Your task to perform on an android device: turn off picture-in-picture Image 0: 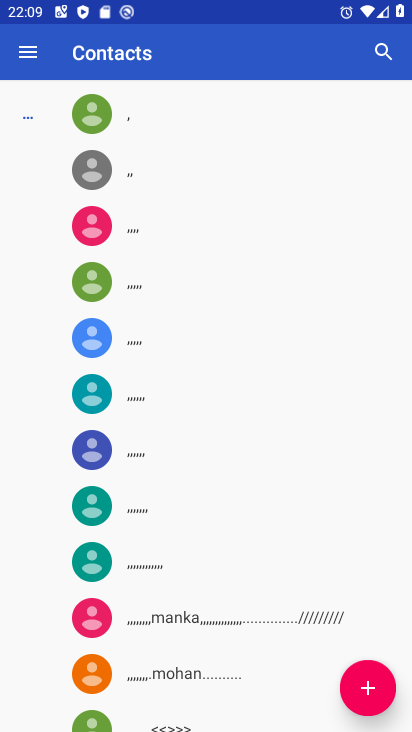
Step 0: press home button
Your task to perform on an android device: turn off picture-in-picture Image 1: 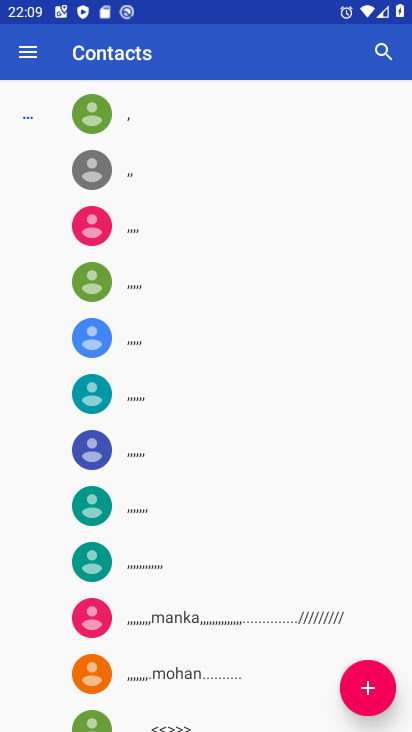
Step 1: press home button
Your task to perform on an android device: turn off picture-in-picture Image 2: 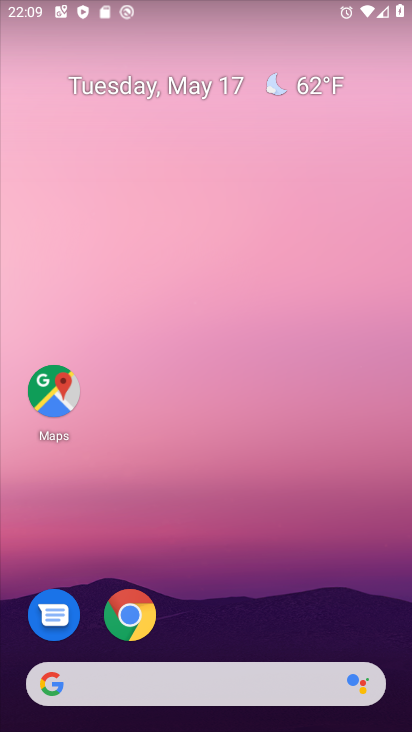
Step 2: drag from (172, 426) to (188, 48)
Your task to perform on an android device: turn off picture-in-picture Image 3: 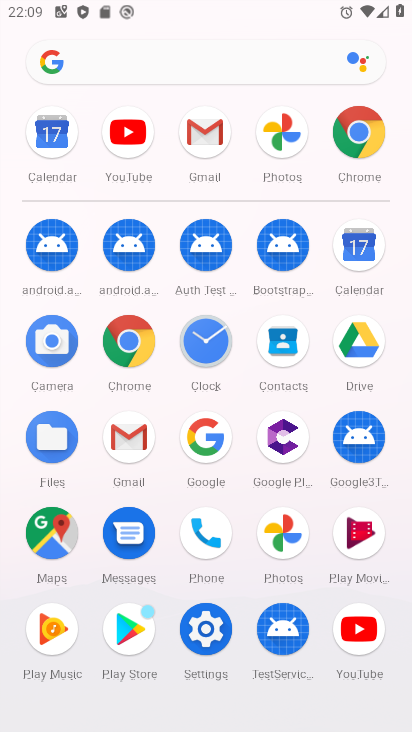
Step 3: click (392, 118)
Your task to perform on an android device: turn off picture-in-picture Image 4: 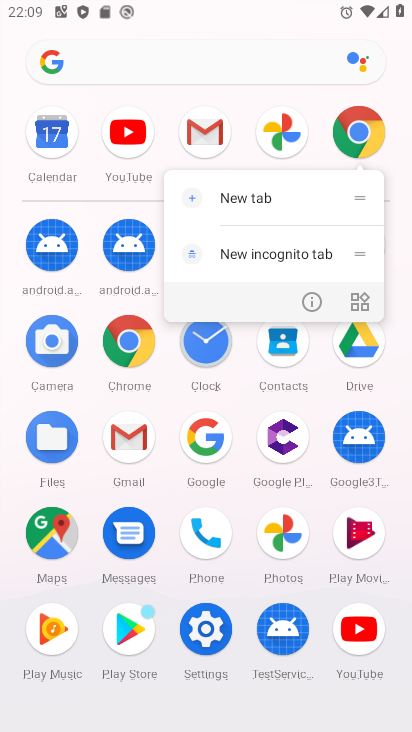
Step 4: click (304, 314)
Your task to perform on an android device: turn off picture-in-picture Image 5: 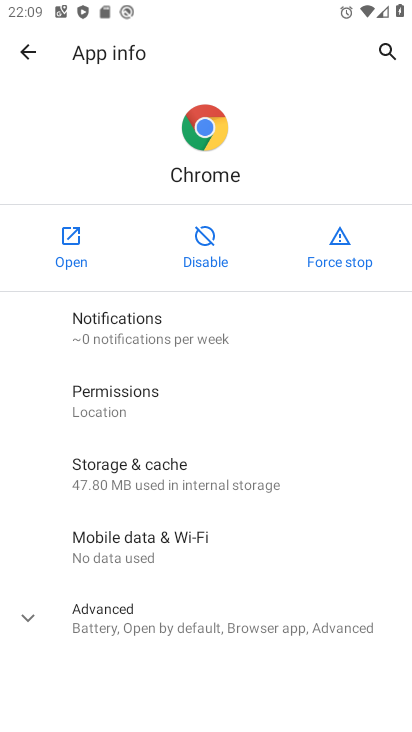
Step 5: click (71, 323)
Your task to perform on an android device: turn off picture-in-picture Image 6: 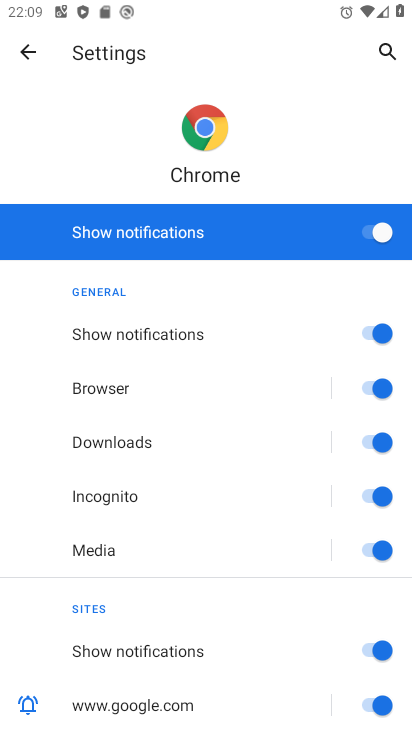
Step 6: drag from (184, 652) to (81, 244)
Your task to perform on an android device: turn off picture-in-picture Image 7: 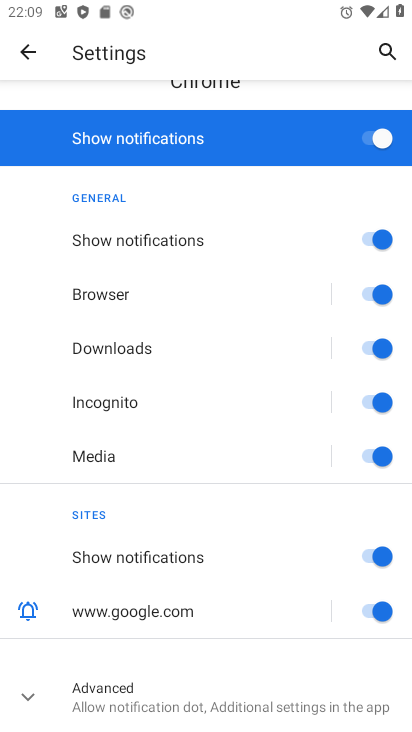
Step 7: click (125, 705)
Your task to perform on an android device: turn off picture-in-picture Image 8: 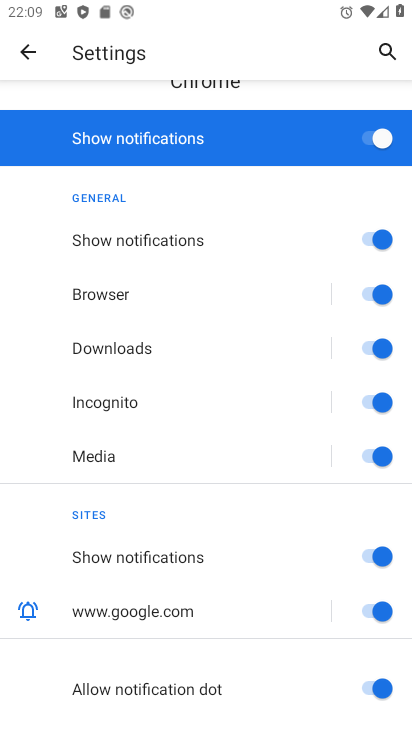
Step 8: drag from (120, 689) to (86, 344)
Your task to perform on an android device: turn off picture-in-picture Image 9: 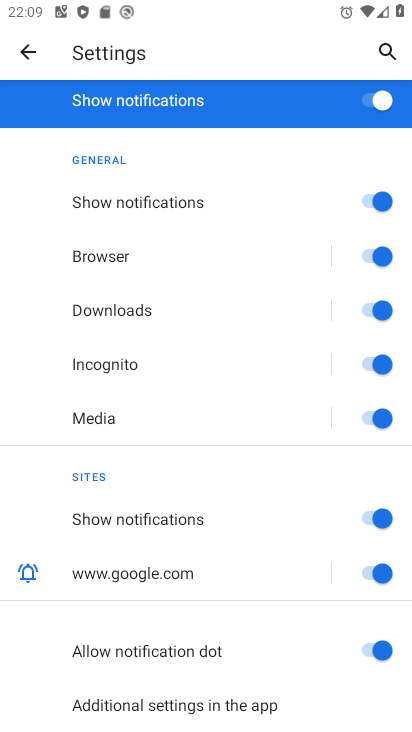
Step 9: drag from (59, 541) to (89, 329)
Your task to perform on an android device: turn off picture-in-picture Image 10: 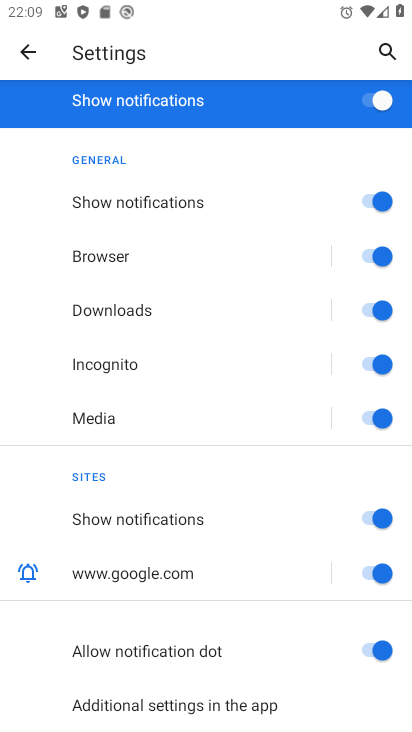
Step 10: drag from (83, 611) to (72, 235)
Your task to perform on an android device: turn off picture-in-picture Image 11: 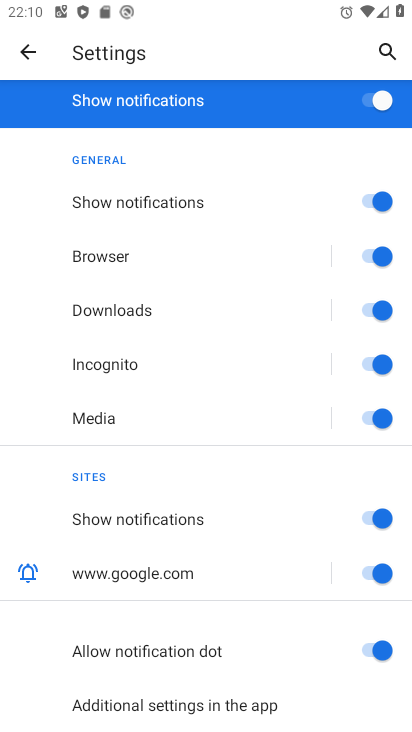
Step 11: drag from (95, 351) to (157, 716)
Your task to perform on an android device: turn off picture-in-picture Image 12: 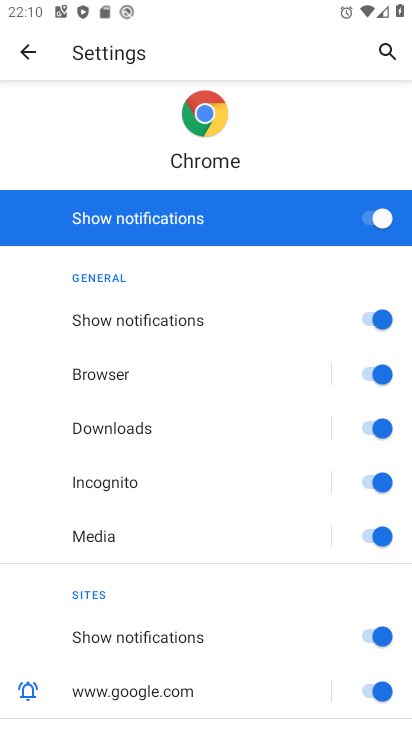
Step 12: click (29, 44)
Your task to perform on an android device: turn off picture-in-picture Image 13: 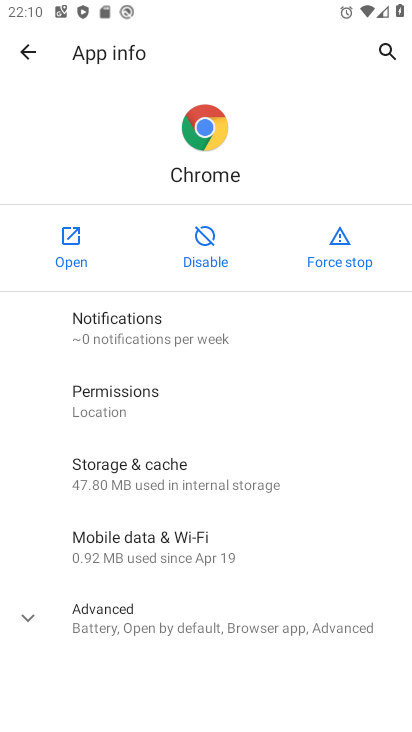
Step 13: click (79, 635)
Your task to perform on an android device: turn off picture-in-picture Image 14: 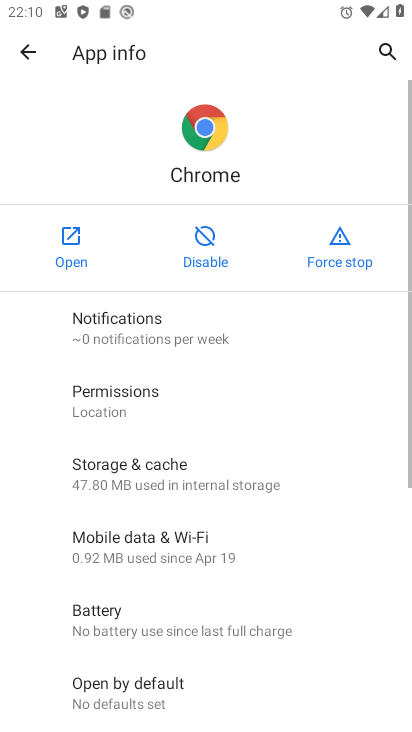
Step 14: drag from (204, 647) to (194, 192)
Your task to perform on an android device: turn off picture-in-picture Image 15: 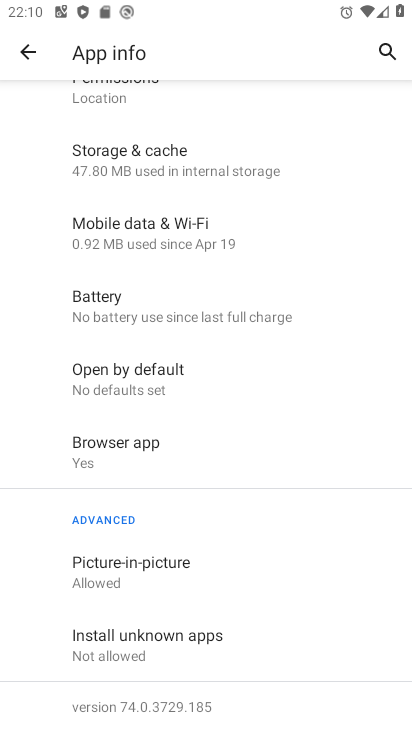
Step 15: click (106, 573)
Your task to perform on an android device: turn off picture-in-picture Image 16: 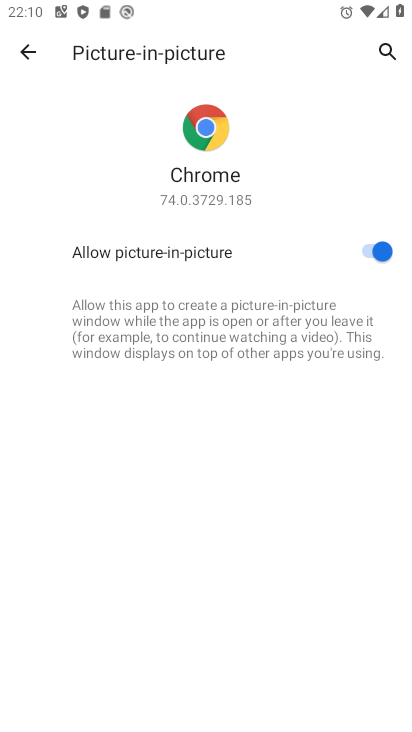
Step 16: click (303, 255)
Your task to perform on an android device: turn off picture-in-picture Image 17: 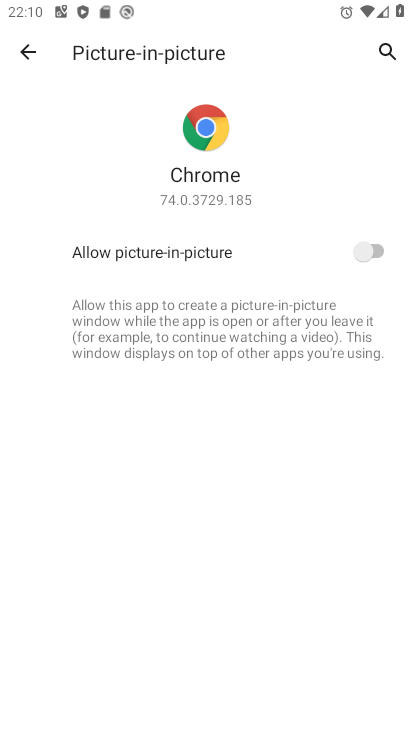
Step 17: task complete